Your task to perform on an android device: Open calendar and show me the second week of next month Image 0: 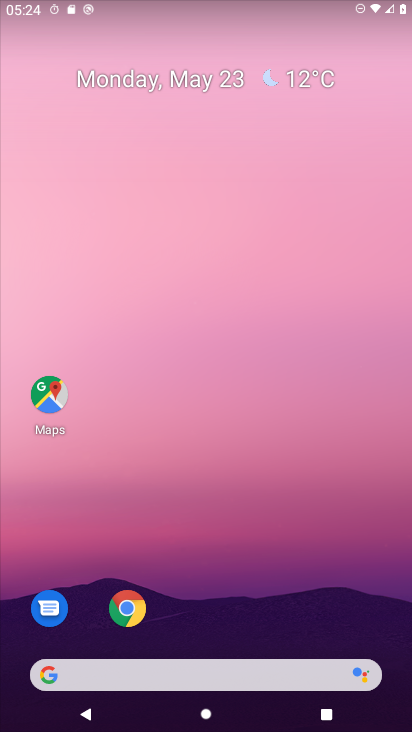
Step 0: drag from (288, 612) to (133, 2)
Your task to perform on an android device: Open calendar and show me the second week of next month Image 1: 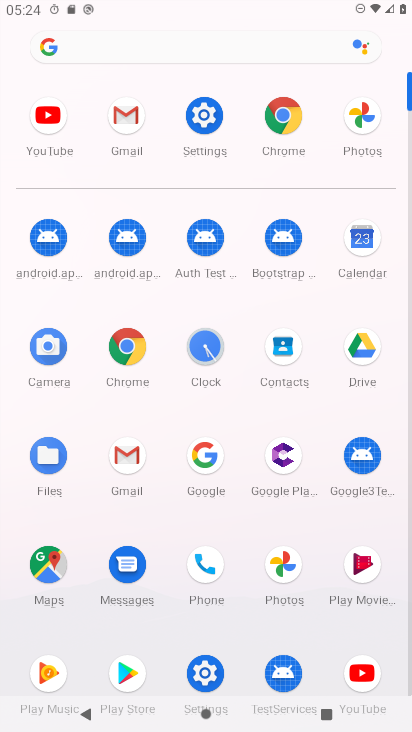
Step 1: click (375, 249)
Your task to perform on an android device: Open calendar and show me the second week of next month Image 2: 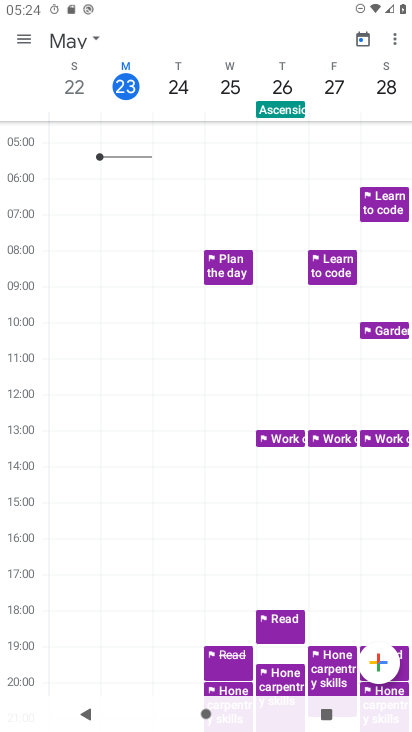
Step 2: click (85, 38)
Your task to perform on an android device: Open calendar and show me the second week of next month Image 3: 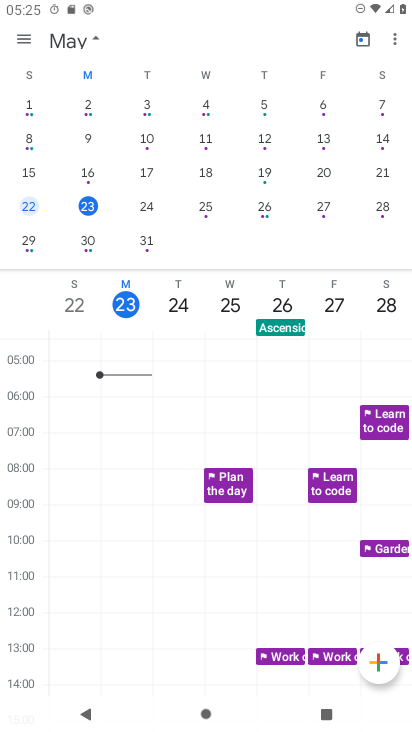
Step 3: drag from (358, 180) to (13, 465)
Your task to perform on an android device: Open calendar and show me the second week of next month Image 4: 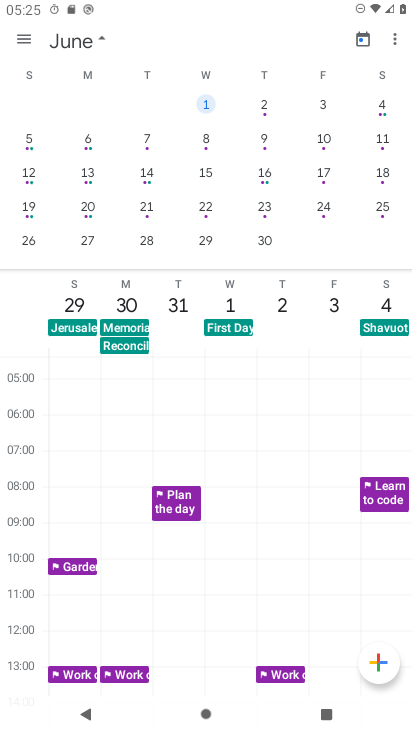
Step 4: click (41, 144)
Your task to perform on an android device: Open calendar and show me the second week of next month Image 5: 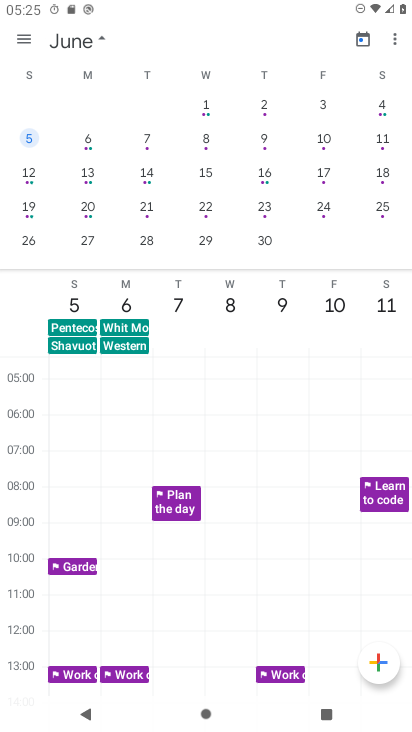
Step 5: task complete